Your task to perform on an android device: toggle sleep mode Image 0: 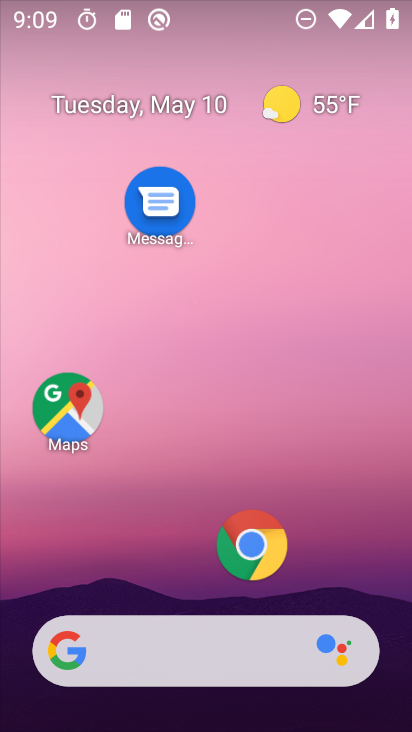
Step 0: drag from (198, 513) to (234, 139)
Your task to perform on an android device: toggle sleep mode Image 1: 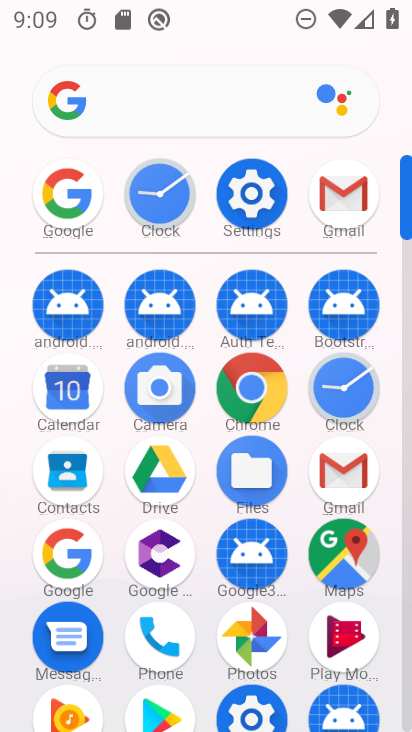
Step 1: click (246, 186)
Your task to perform on an android device: toggle sleep mode Image 2: 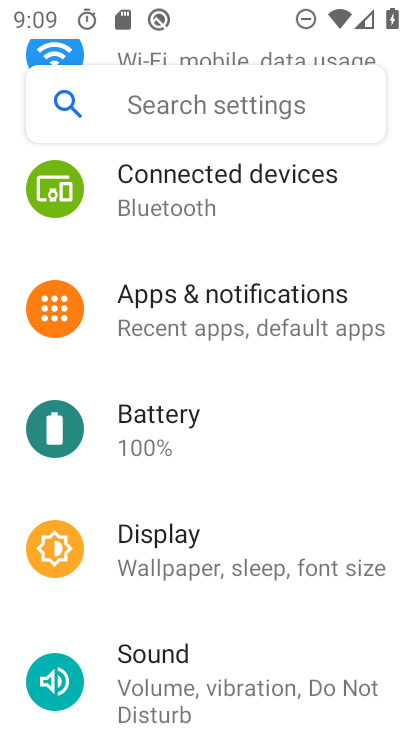
Step 2: drag from (224, 608) to (252, 357)
Your task to perform on an android device: toggle sleep mode Image 3: 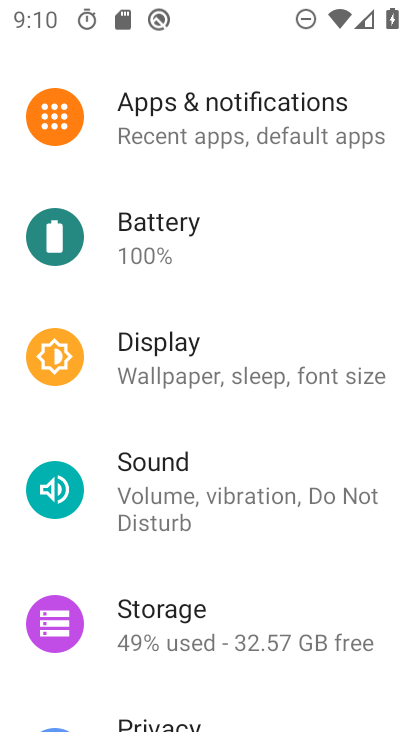
Step 3: click (202, 351)
Your task to perform on an android device: toggle sleep mode Image 4: 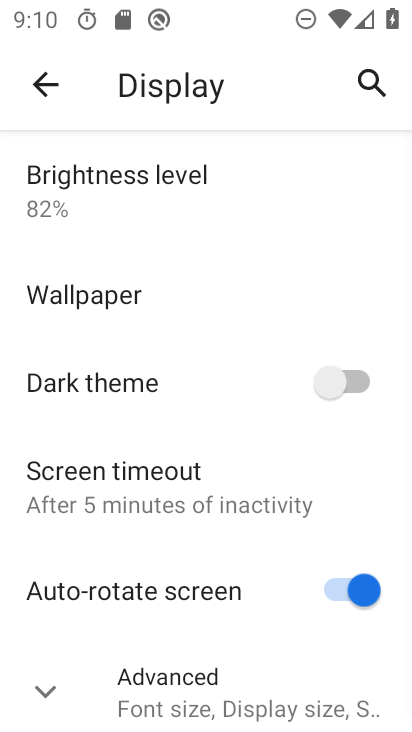
Step 4: drag from (213, 534) to (240, 343)
Your task to perform on an android device: toggle sleep mode Image 5: 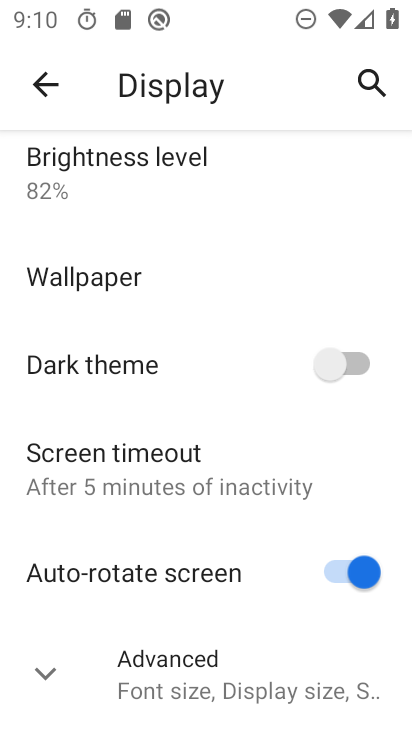
Step 5: click (131, 464)
Your task to perform on an android device: toggle sleep mode Image 6: 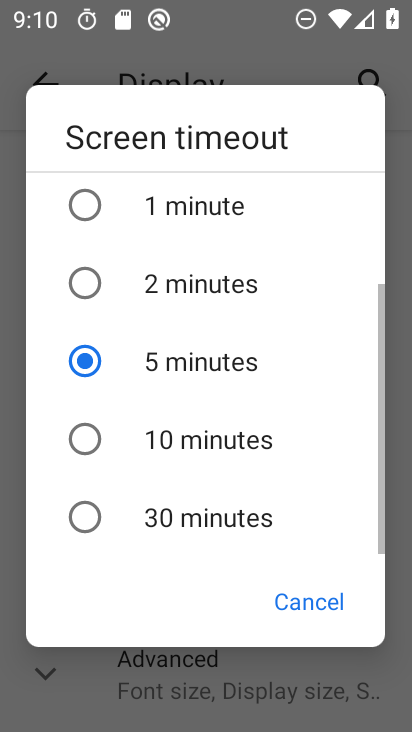
Step 6: click (154, 452)
Your task to perform on an android device: toggle sleep mode Image 7: 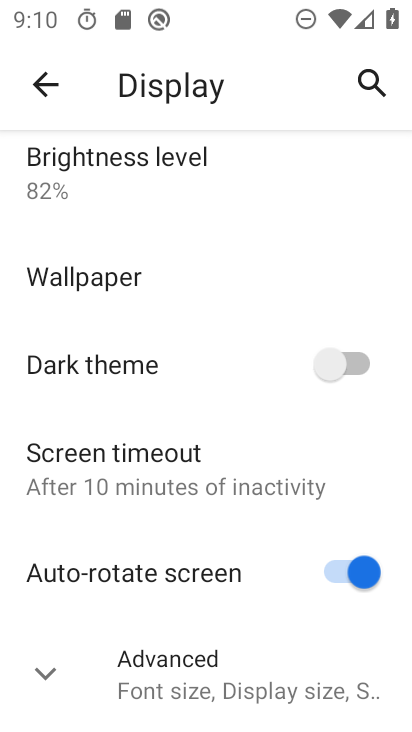
Step 7: task complete